Your task to perform on an android device: turn on notifications settings in the gmail app Image 0: 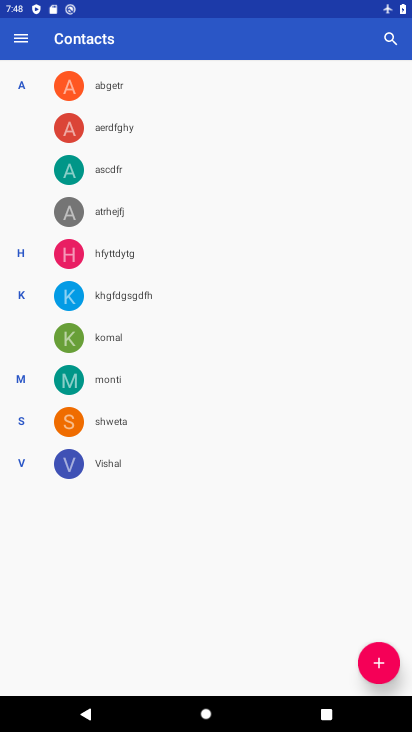
Step 0: press home button
Your task to perform on an android device: turn on notifications settings in the gmail app Image 1: 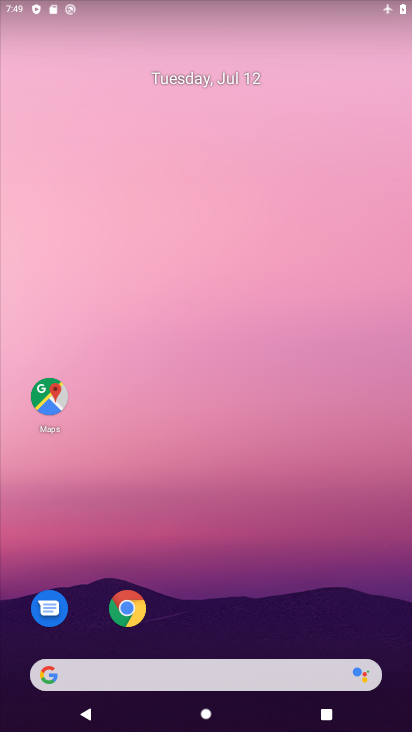
Step 1: drag from (188, 640) to (118, 92)
Your task to perform on an android device: turn on notifications settings in the gmail app Image 2: 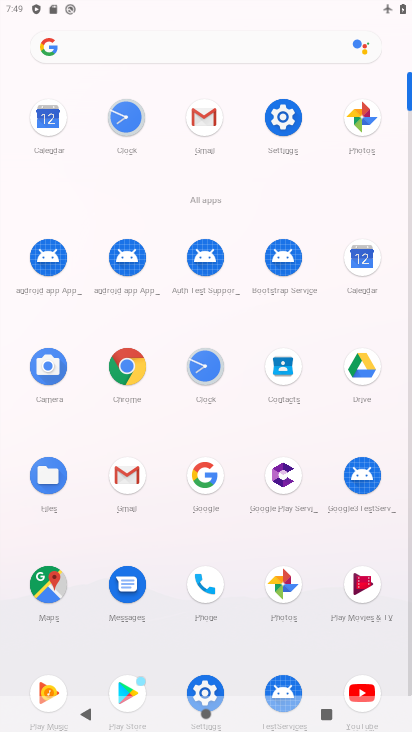
Step 2: click (130, 471)
Your task to perform on an android device: turn on notifications settings in the gmail app Image 3: 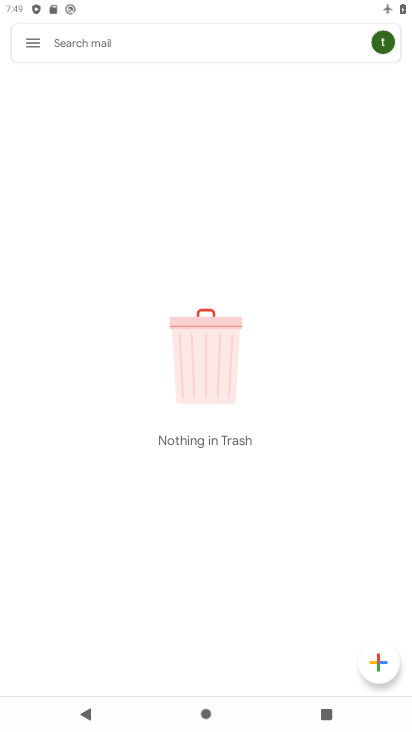
Step 3: click (25, 45)
Your task to perform on an android device: turn on notifications settings in the gmail app Image 4: 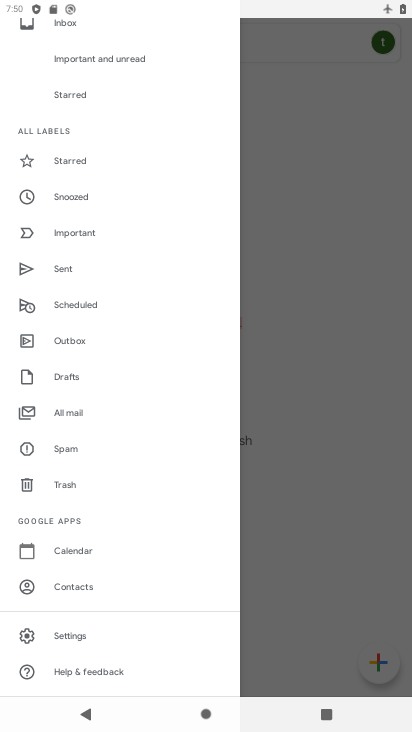
Step 4: click (43, 642)
Your task to perform on an android device: turn on notifications settings in the gmail app Image 5: 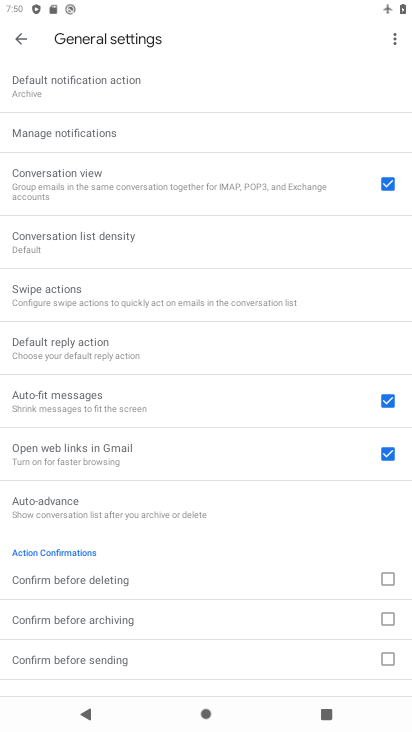
Step 5: click (83, 141)
Your task to perform on an android device: turn on notifications settings in the gmail app Image 6: 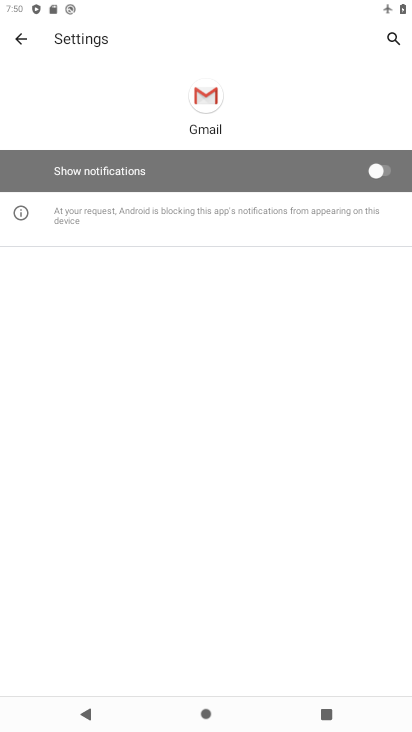
Step 6: click (373, 172)
Your task to perform on an android device: turn on notifications settings in the gmail app Image 7: 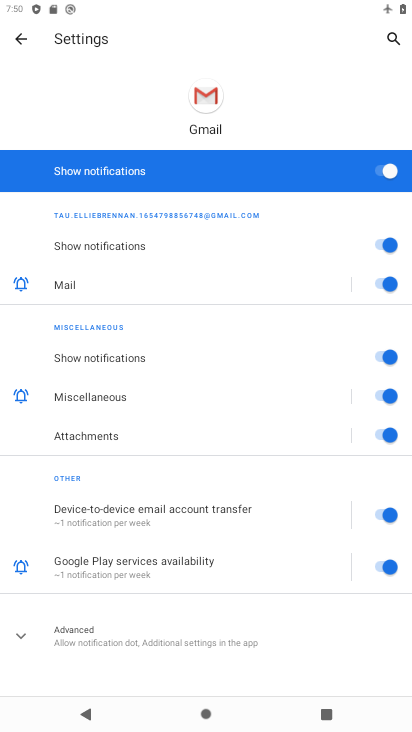
Step 7: task complete